Your task to perform on an android device: Open wifi settings Image 0: 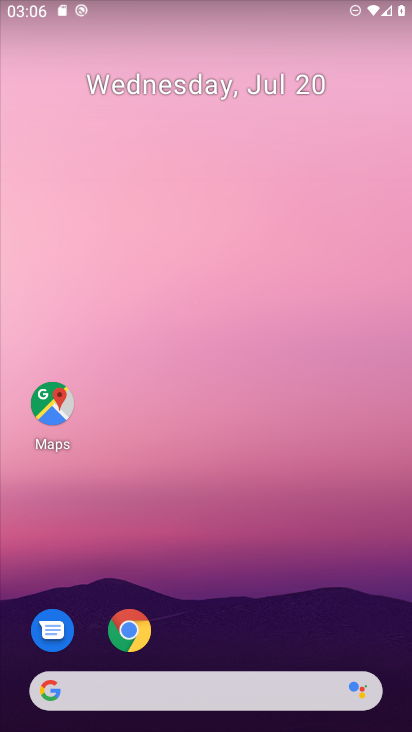
Step 0: drag from (332, 595) to (334, 137)
Your task to perform on an android device: Open wifi settings Image 1: 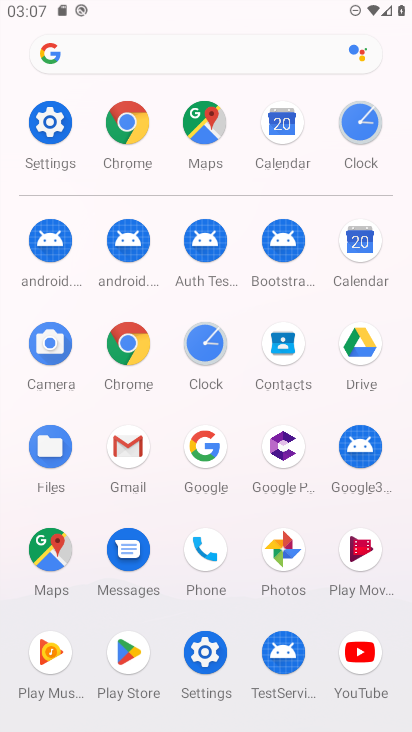
Step 1: click (53, 128)
Your task to perform on an android device: Open wifi settings Image 2: 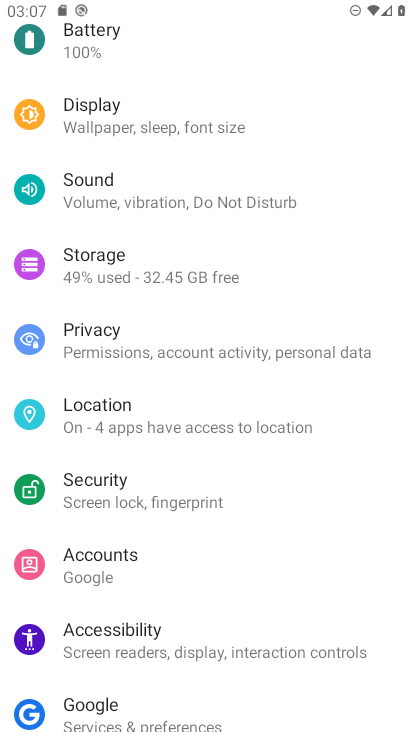
Step 2: drag from (329, 185) to (339, 258)
Your task to perform on an android device: Open wifi settings Image 3: 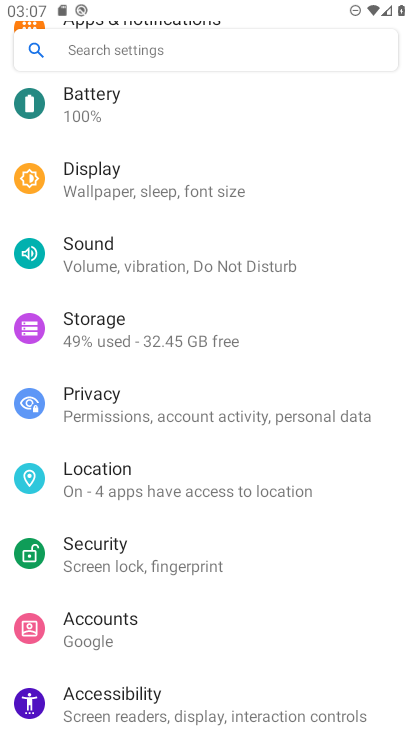
Step 3: drag from (335, 202) to (339, 282)
Your task to perform on an android device: Open wifi settings Image 4: 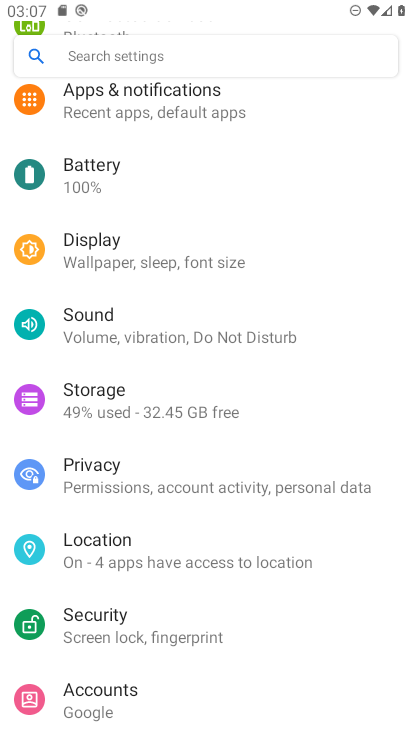
Step 4: drag from (332, 191) to (335, 278)
Your task to perform on an android device: Open wifi settings Image 5: 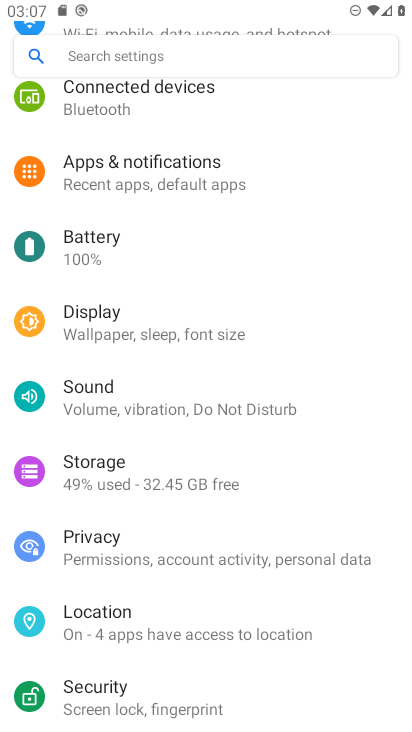
Step 5: drag from (322, 183) to (322, 261)
Your task to perform on an android device: Open wifi settings Image 6: 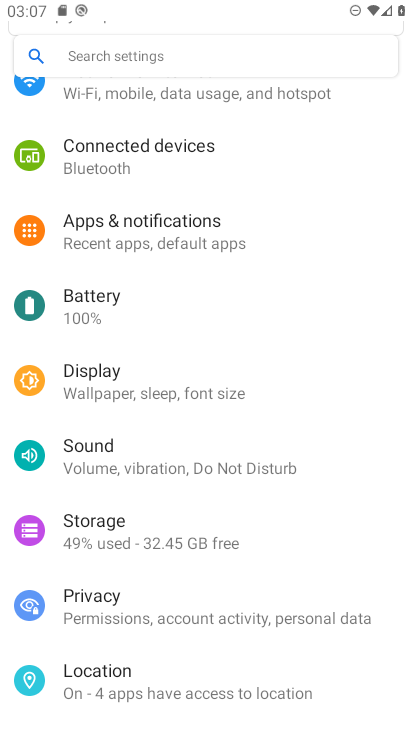
Step 6: drag from (308, 184) to (313, 283)
Your task to perform on an android device: Open wifi settings Image 7: 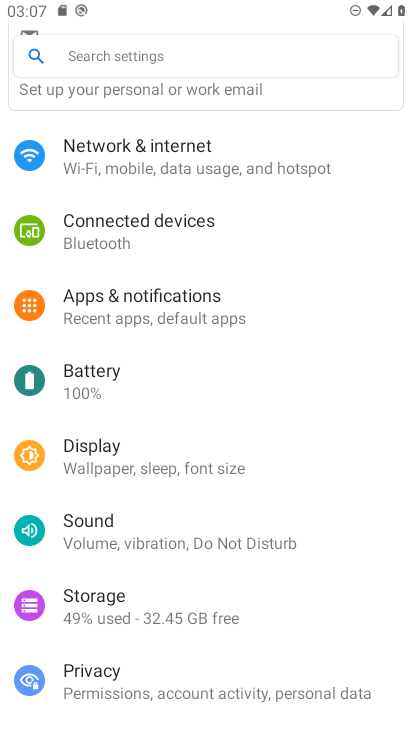
Step 7: drag from (311, 215) to (311, 365)
Your task to perform on an android device: Open wifi settings Image 8: 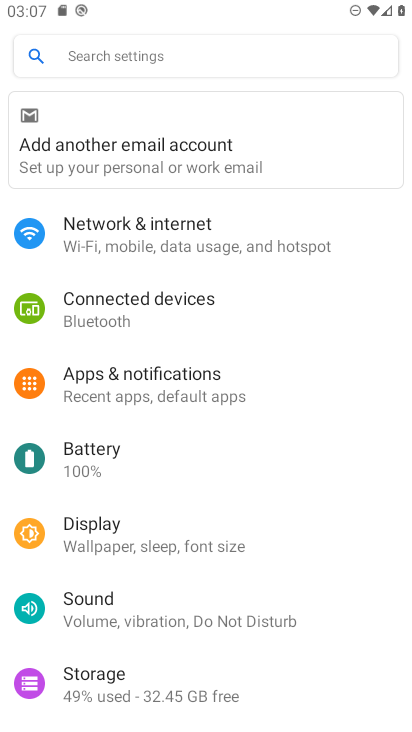
Step 8: click (271, 241)
Your task to perform on an android device: Open wifi settings Image 9: 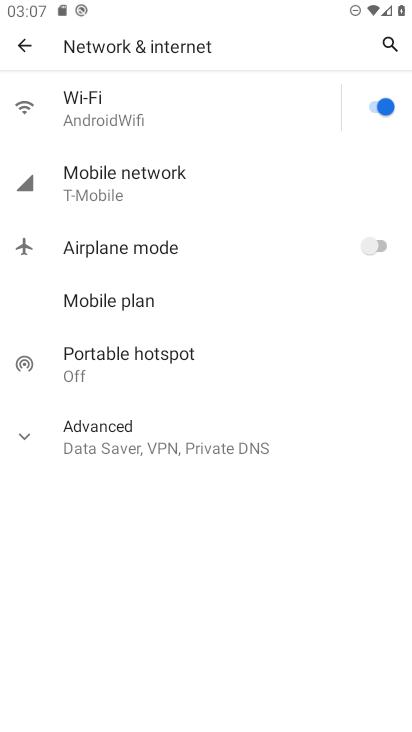
Step 9: click (145, 111)
Your task to perform on an android device: Open wifi settings Image 10: 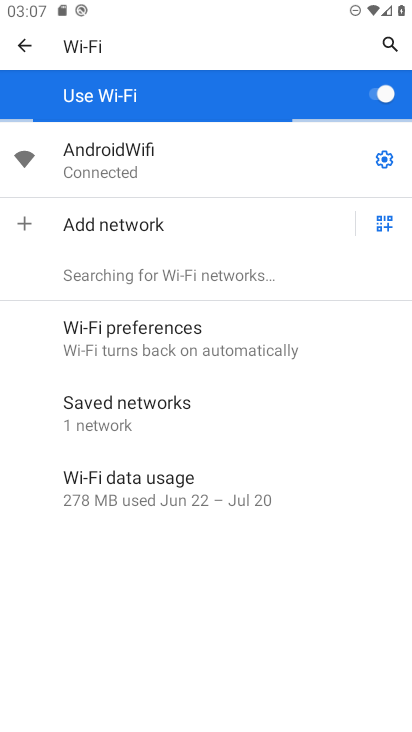
Step 10: task complete